Your task to perform on an android device: Add macbook to the cart on ebay.com Image 0: 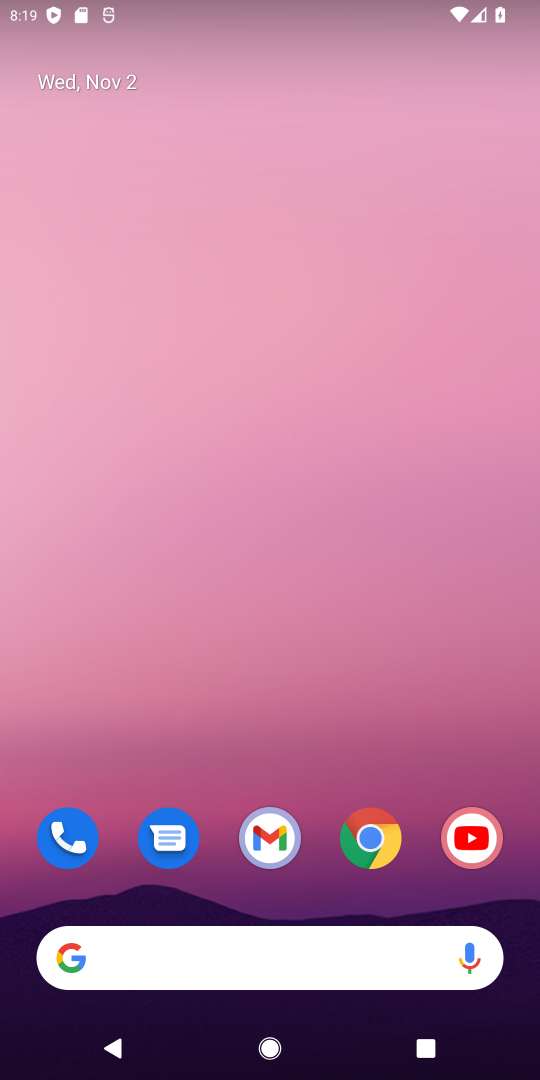
Step 0: click (388, 862)
Your task to perform on an android device: Add macbook to the cart on ebay.com Image 1: 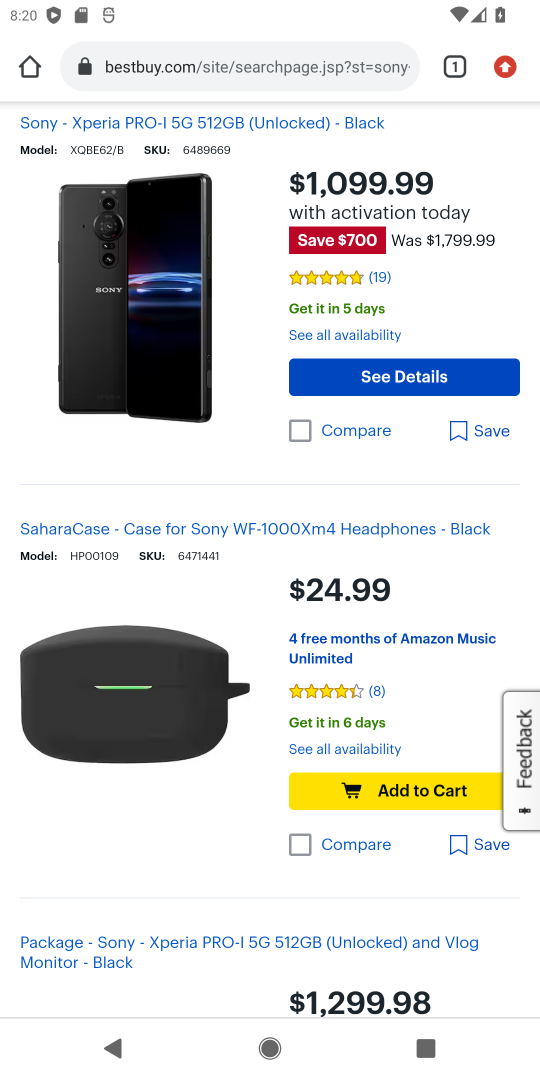
Step 1: click (329, 76)
Your task to perform on an android device: Add macbook to the cart on ebay.com Image 2: 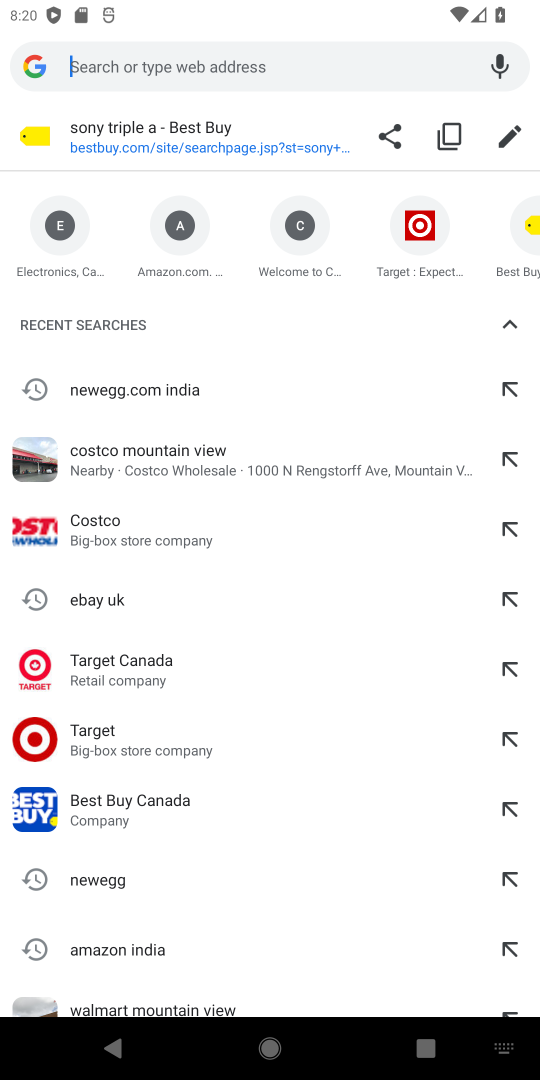
Step 2: type "ebay.com"
Your task to perform on an android device: Add macbook to the cart on ebay.com Image 3: 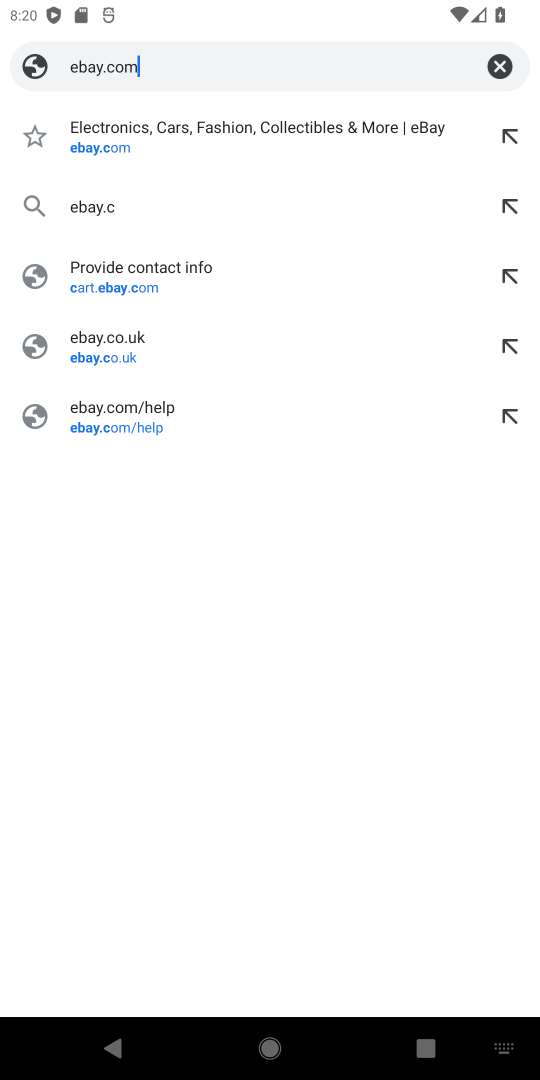
Step 3: type ""
Your task to perform on an android device: Add macbook to the cart on ebay.com Image 4: 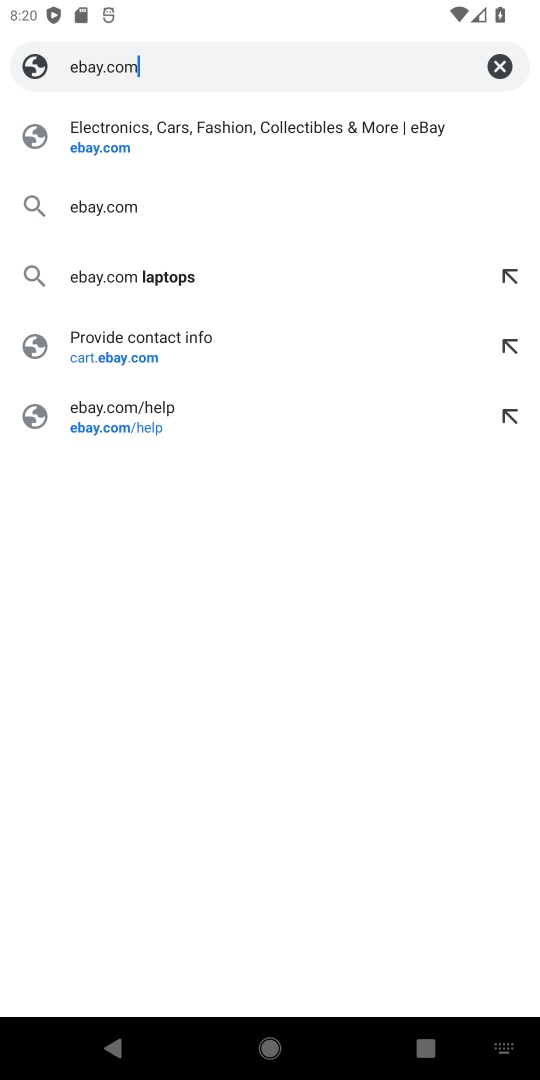
Step 4: press enter
Your task to perform on an android device: Add macbook to the cart on ebay.com Image 5: 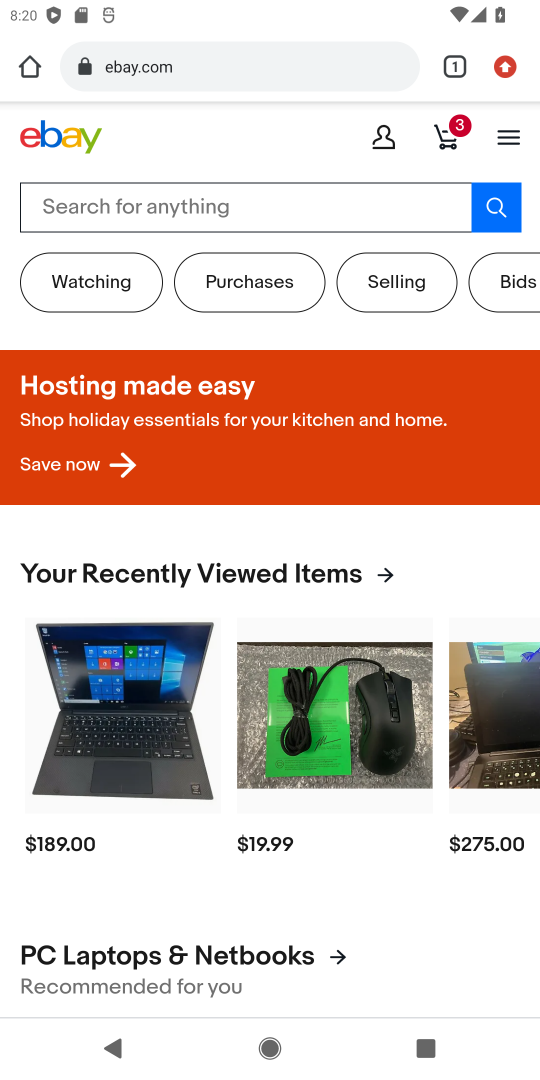
Step 5: click (279, 219)
Your task to perform on an android device: Add macbook to the cart on ebay.com Image 6: 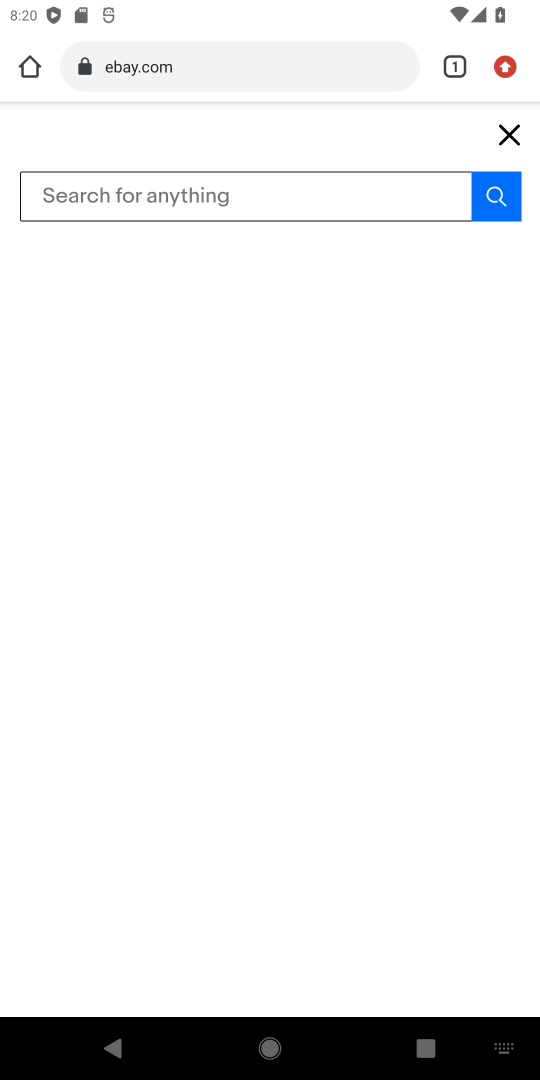
Step 6: type "macbook"
Your task to perform on an android device: Add macbook to the cart on ebay.com Image 7: 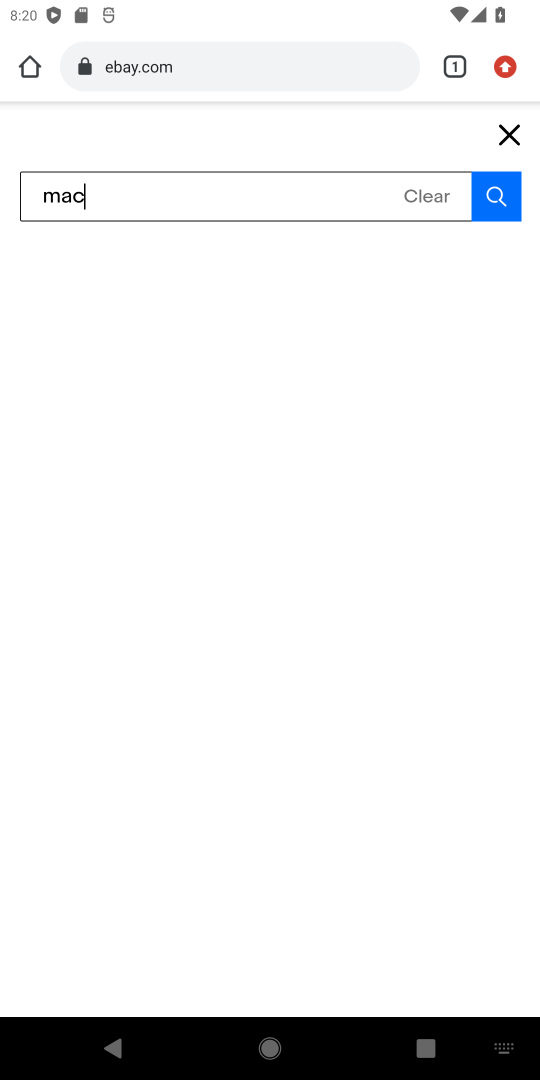
Step 7: type ""
Your task to perform on an android device: Add macbook to the cart on ebay.com Image 8: 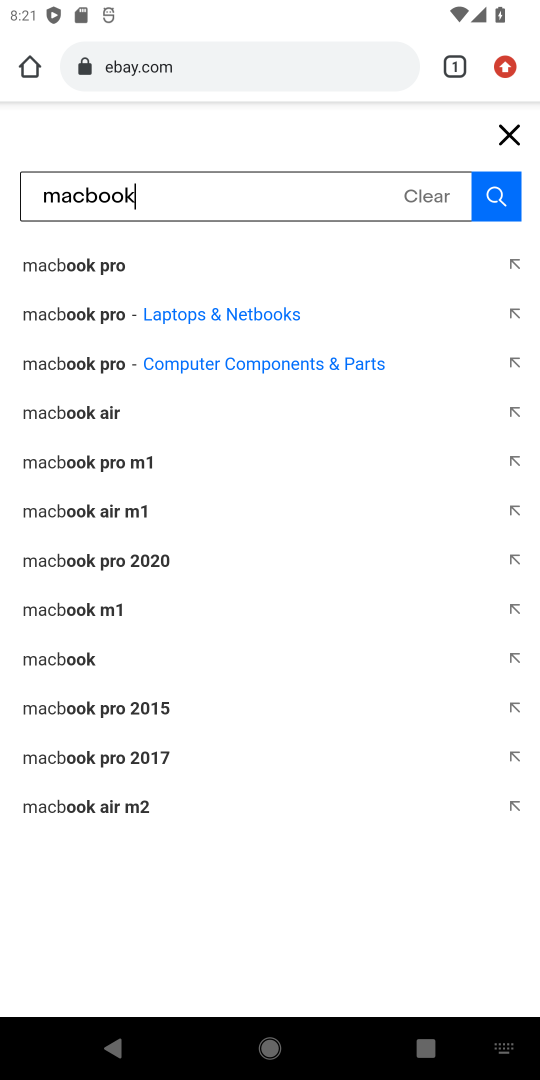
Step 8: press enter
Your task to perform on an android device: Add macbook to the cart on ebay.com Image 9: 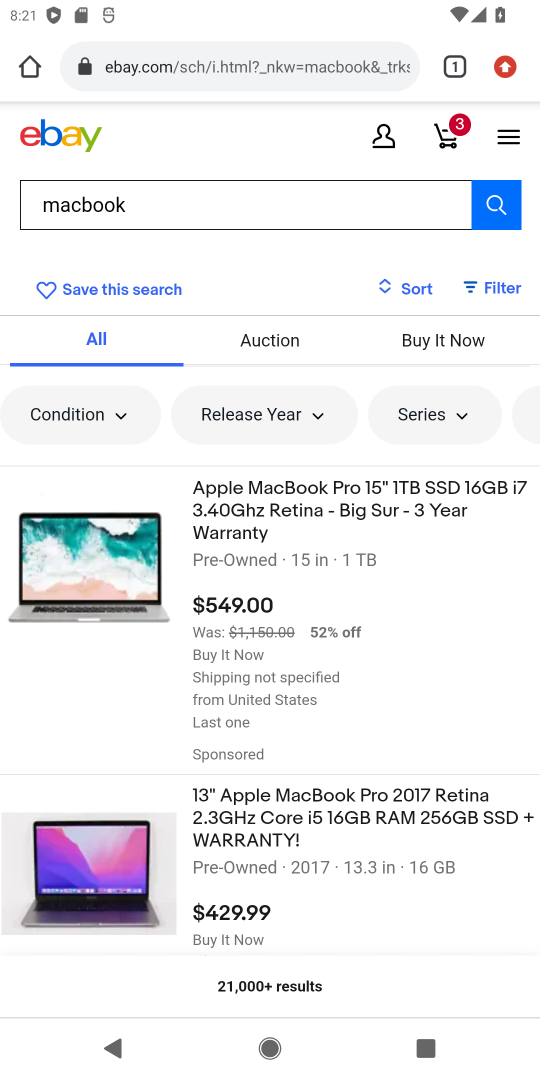
Step 9: click (483, 192)
Your task to perform on an android device: Add macbook to the cart on ebay.com Image 10: 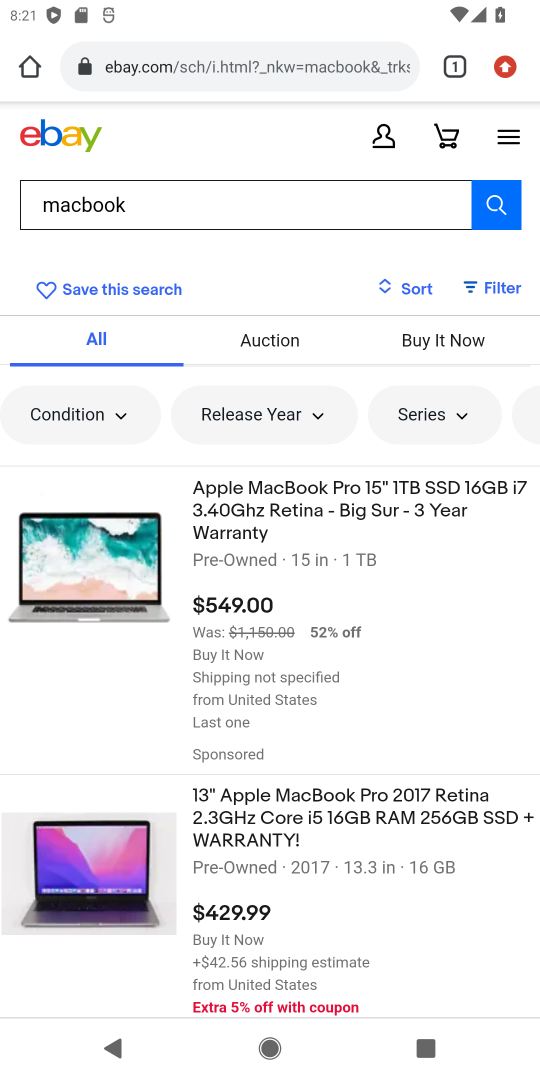
Step 10: click (366, 558)
Your task to perform on an android device: Add macbook to the cart on ebay.com Image 11: 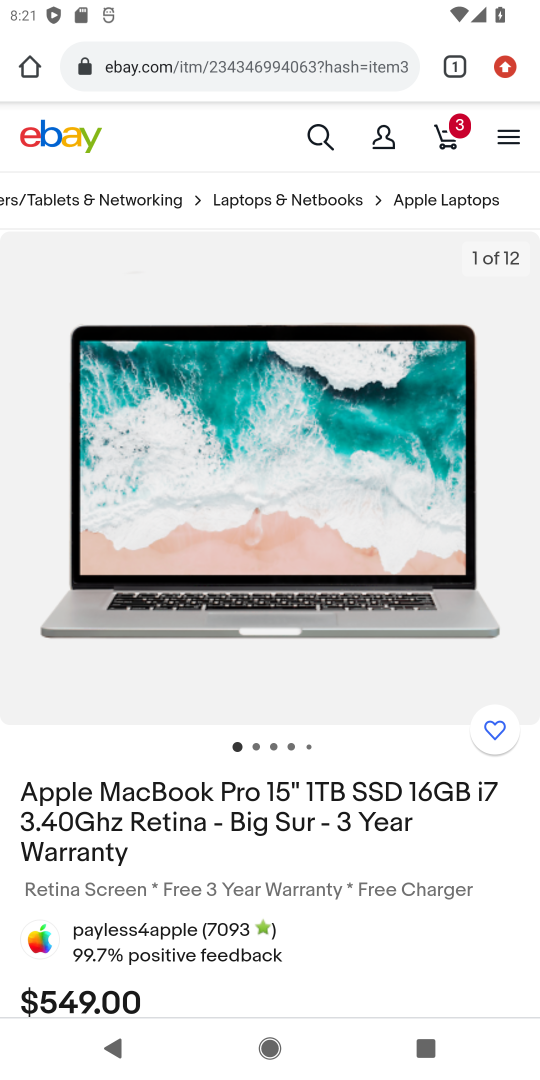
Step 11: drag from (288, 841) to (388, 412)
Your task to perform on an android device: Add macbook to the cart on ebay.com Image 12: 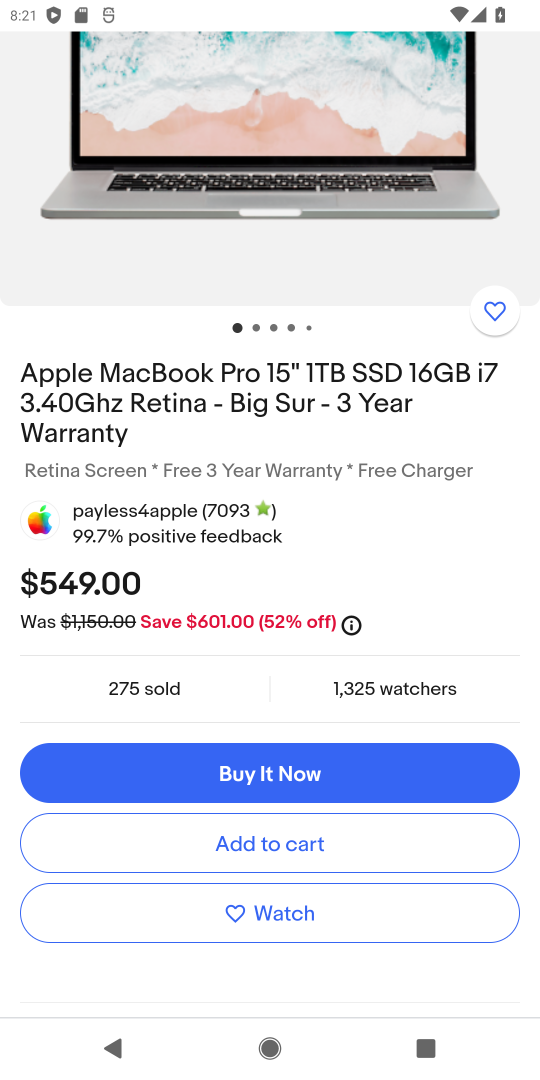
Step 12: click (316, 853)
Your task to perform on an android device: Add macbook to the cart on ebay.com Image 13: 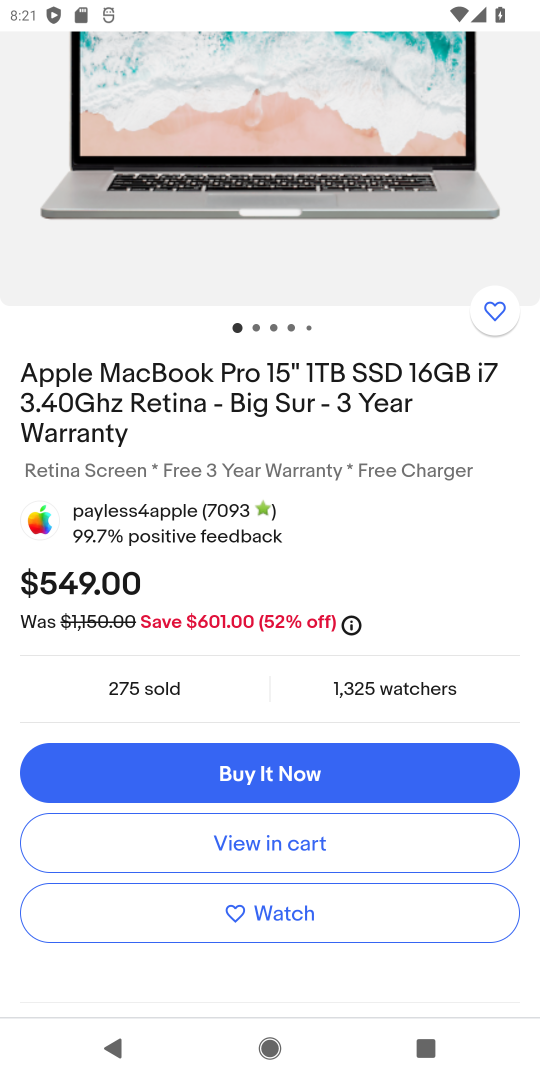
Step 13: click (316, 853)
Your task to perform on an android device: Add macbook to the cart on ebay.com Image 14: 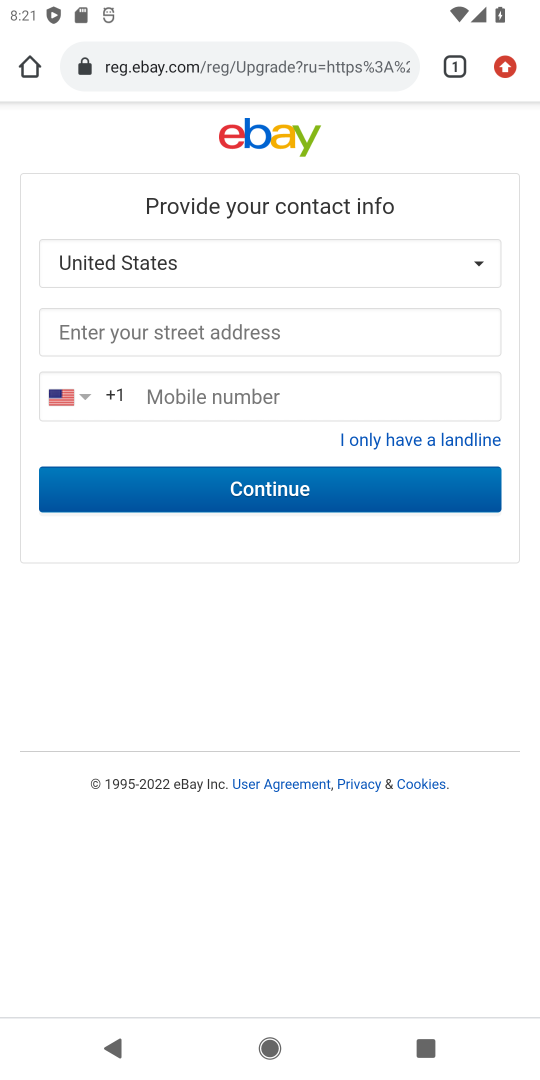
Step 14: task complete